Your task to perform on an android device: What time is it in Tokyo? Image 0: 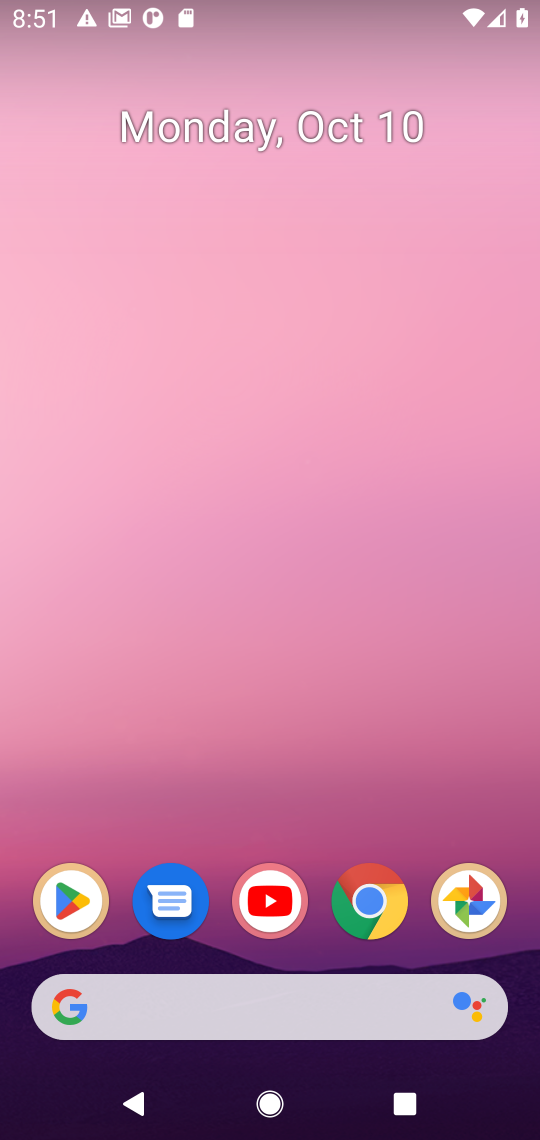
Step 0: press home button
Your task to perform on an android device: What time is it in Tokyo? Image 1: 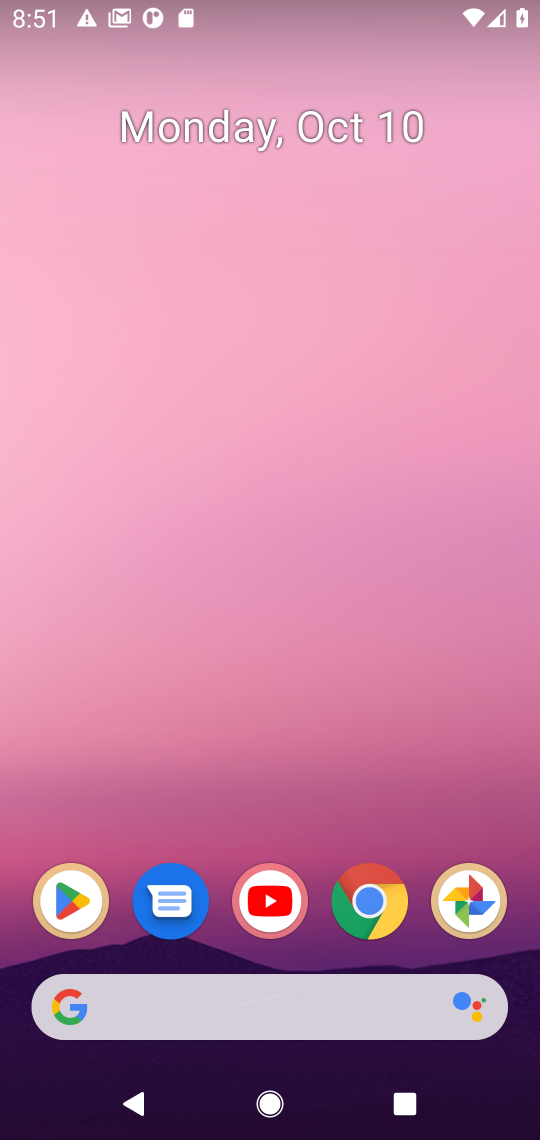
Step 1: click (218, 1014)
Your task to perform on an android device: What time is it in Tokyo? Image 2: 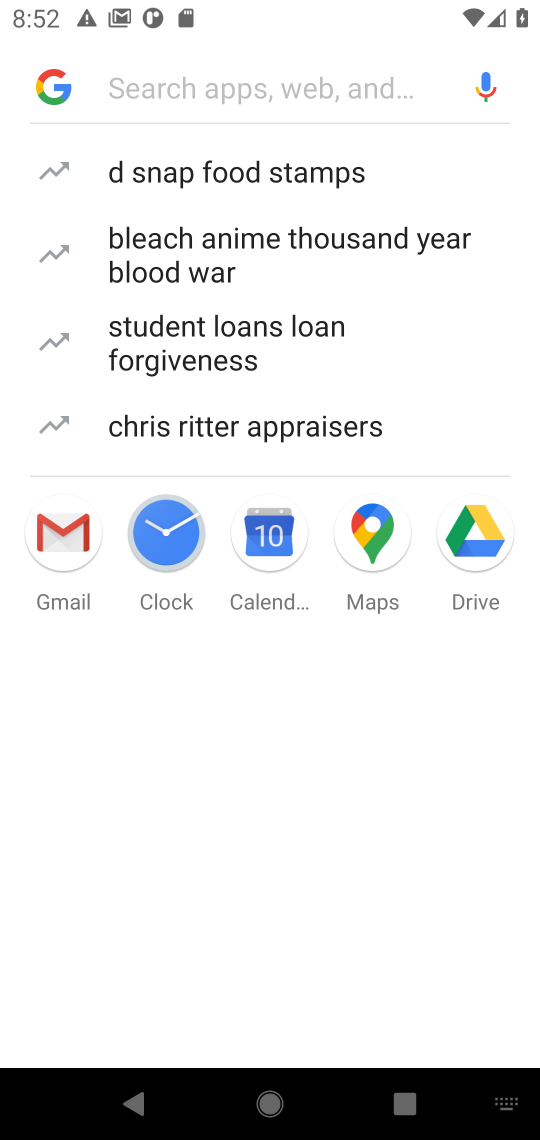
Step 2: type "What time is it in Tokyo"
Your task to perform on an android device: What time is it in Tokyo? Image 3: 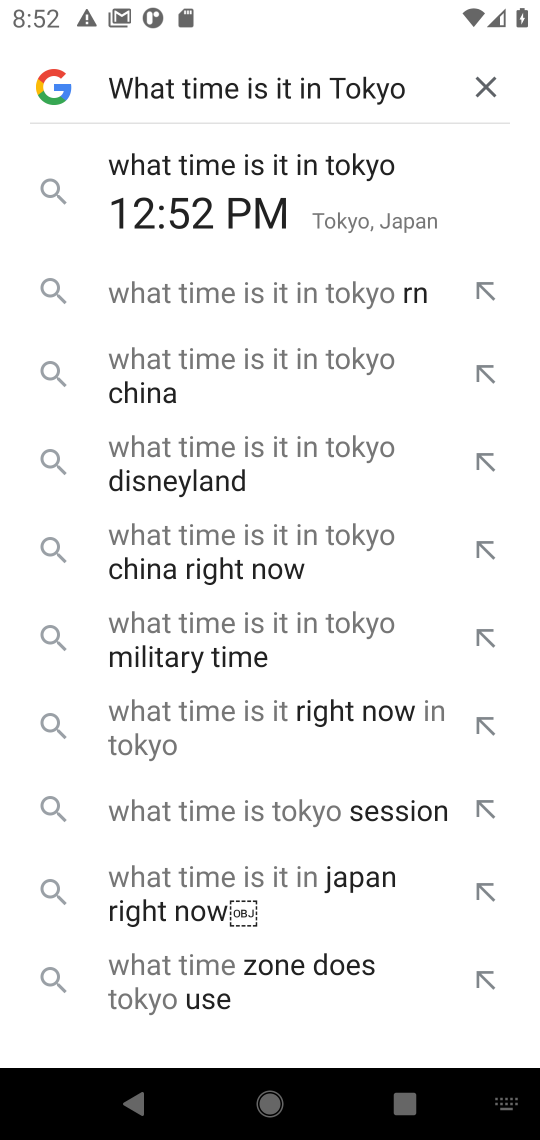
Step 3: press enter
Your task to perform on an android device: What time is it in Tokyo? Image 4: 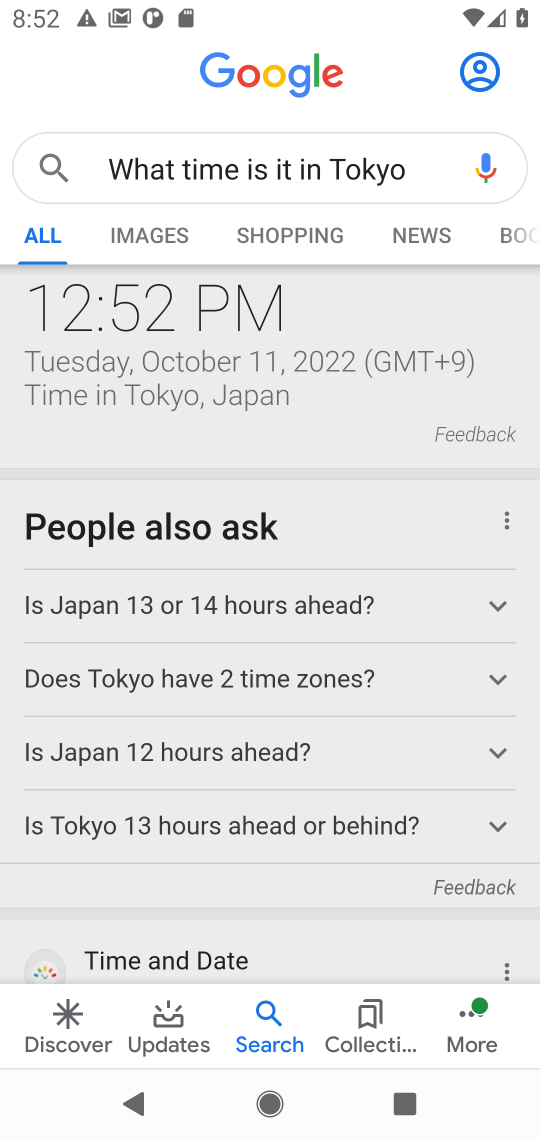
Step 4: task complete